Your task to perform on an android device: Open notification settings Image 0: 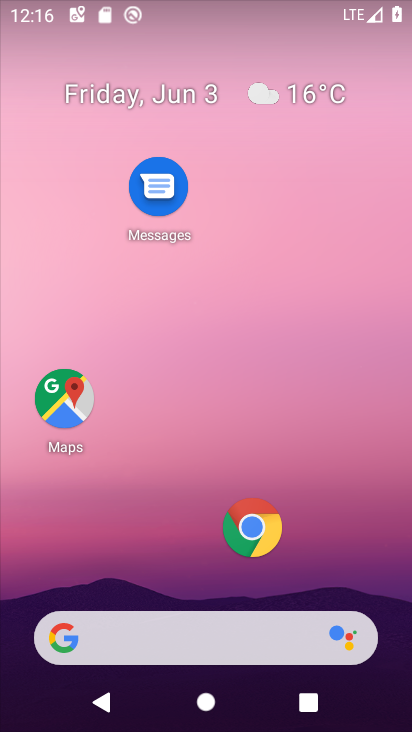
Step 0: press home button
Your task to perform on an android device: Open notification settings Image 1: 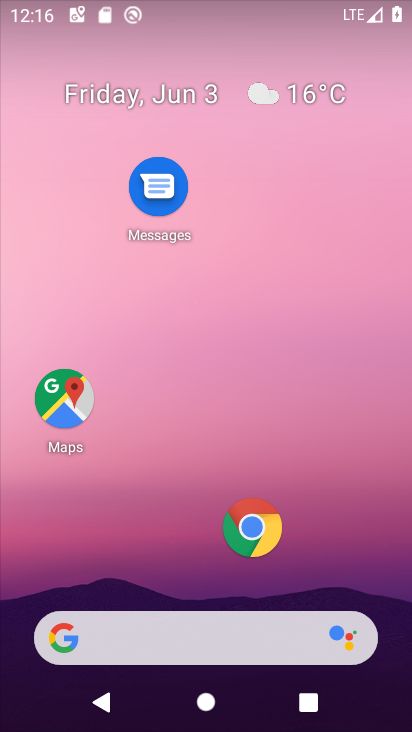
Step 1: drag from (206, 585) to (266, 95)
Your task to perform on an android device: Open notification settings Image 2: 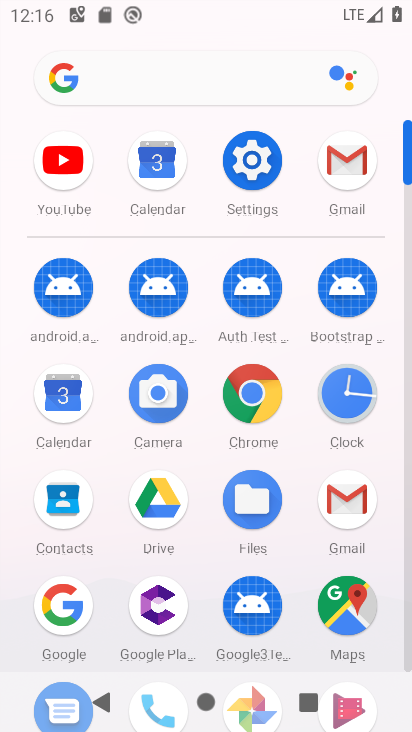
Step 2: click (250, 151)
Your task to perform on an android device: Open notification settings Image 3: 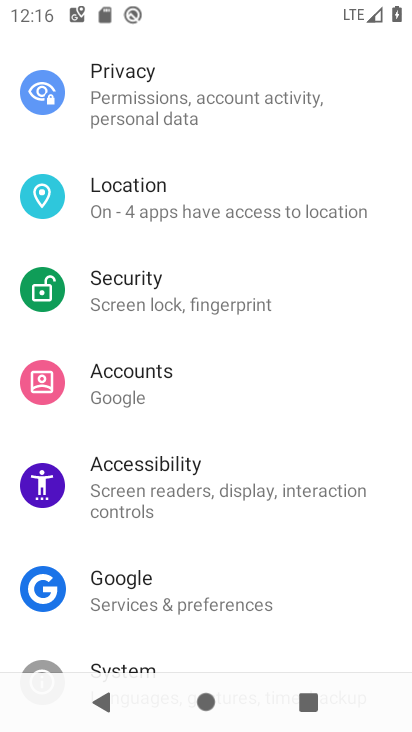
Step 3: drag from (183, 137) to (220, 531)
Your task to perform on an android device: Open notification settings Image 4: 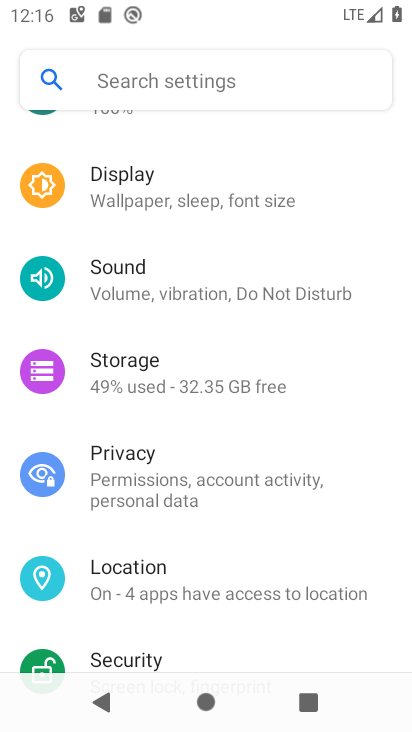
Step 4: drag from (179, 178) to (244, 517)
Your task to perform on an android device: Open notification settings Image 5: 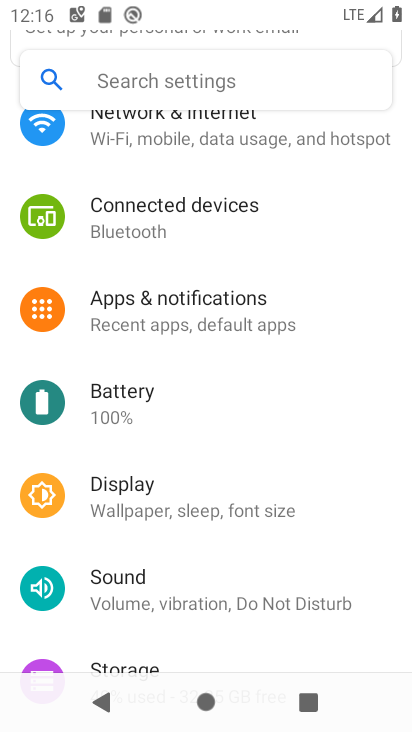
Step 5: click (284, 293)
Your task to perform on an android device: Open notification settings Image 6: 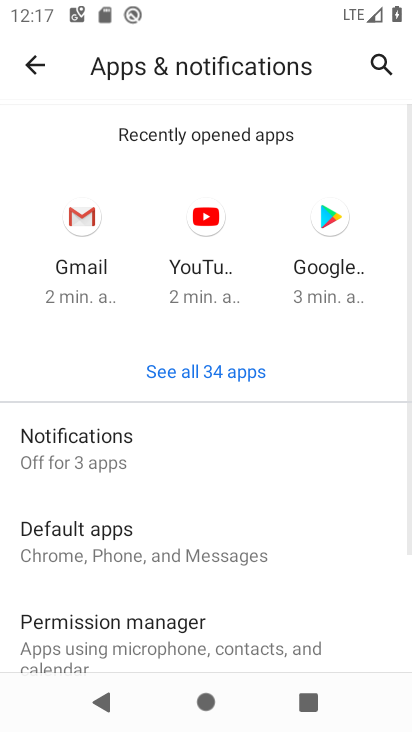
Step 6: click (152, 441)
Your task to perform on an android device: Open notification settings Image 7: 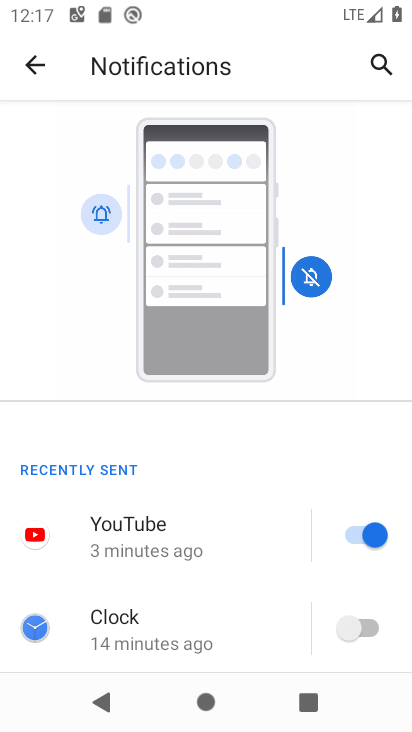
Step 7: drag from (242, 560) to (276, 106)
Your task to perform on an android device: Open notification settings Image 8: 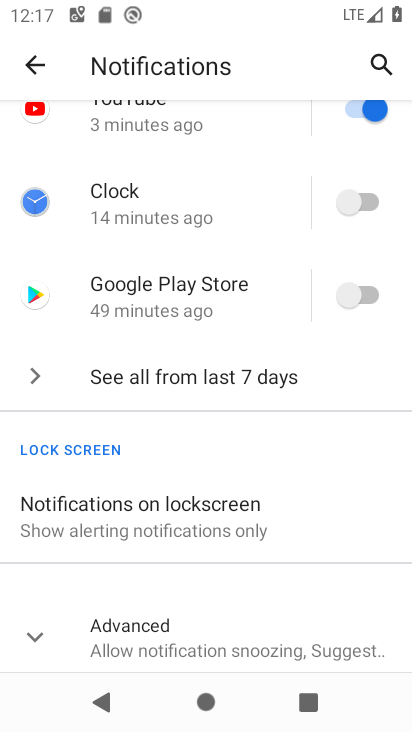
Step 8: click (44, 626)
Your task to perform on an android device: Open notification settings Image 9: 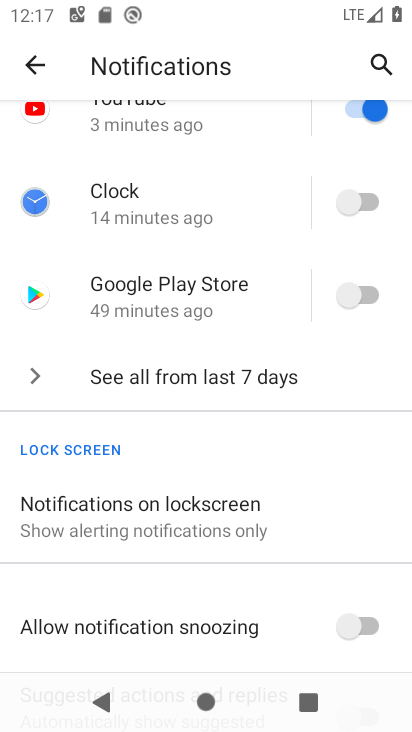
Step 9: task complete